Your task to perform on an android device: Open Google Chrome and open the bookmarks view Image 0: 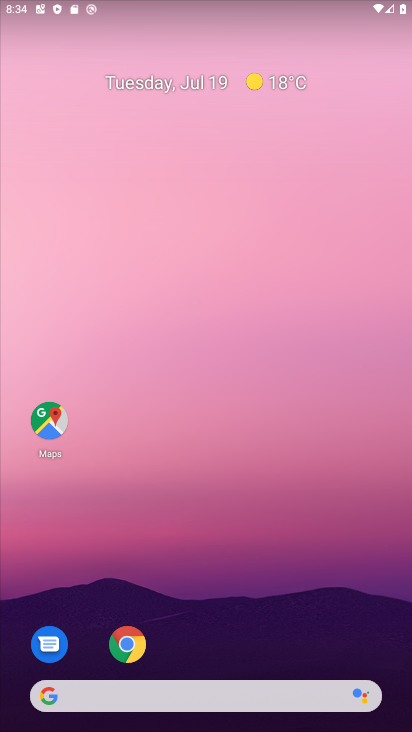
Step 0: click (132, 648)
Your task to perform on an android device: Open Google Chrome and open the bookmarks view Image 1: 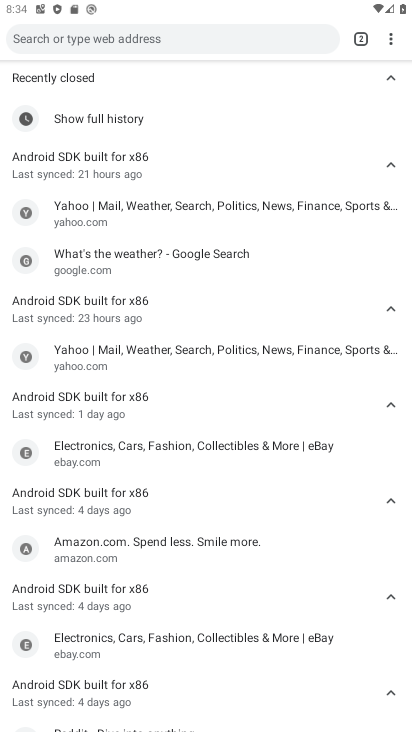
Step 1: click (390, 46)
Your task to perform on an android device: Open Google Chrome and open the bookmarks view Image 2: 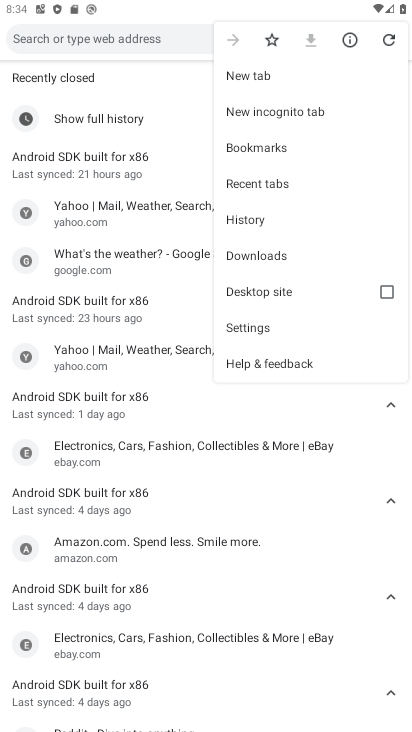
Step 2: click (263, 144)
Your task to perform on an android device: Open Google Chrome and open the bookmarks view Image 3: 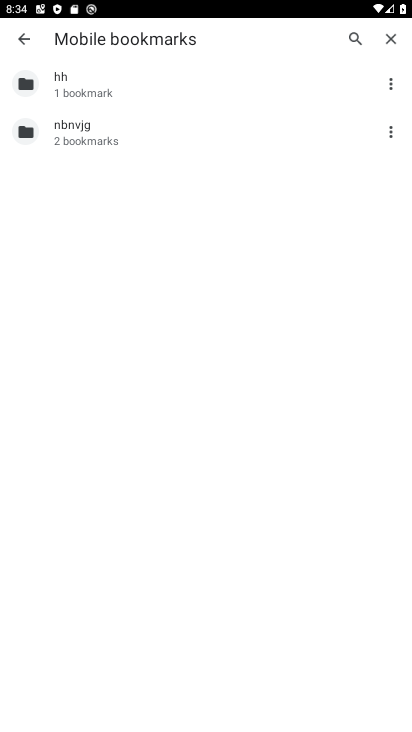
Step 3: task complete